Your task to perform on an android device: turn off javascript in the chrome app Image 0: 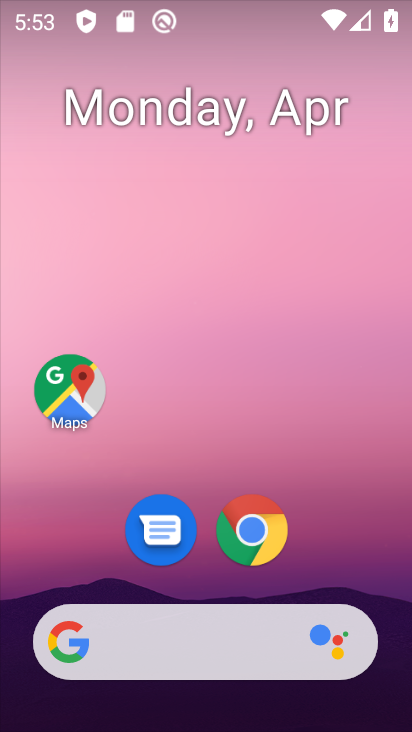
Step 0: click (249, 536)
Your task to perform on an android device: turn off javascript in the chrome app Image 1: 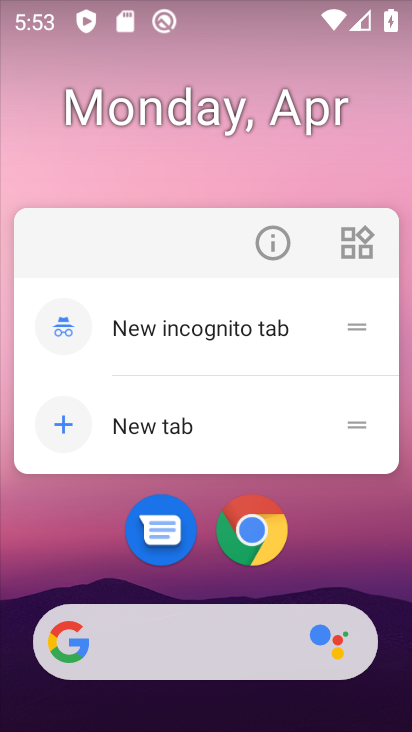
Step 1: click (251, 522)
Your task to perform on an android device: turn off javascript in the chrome app Image 2: 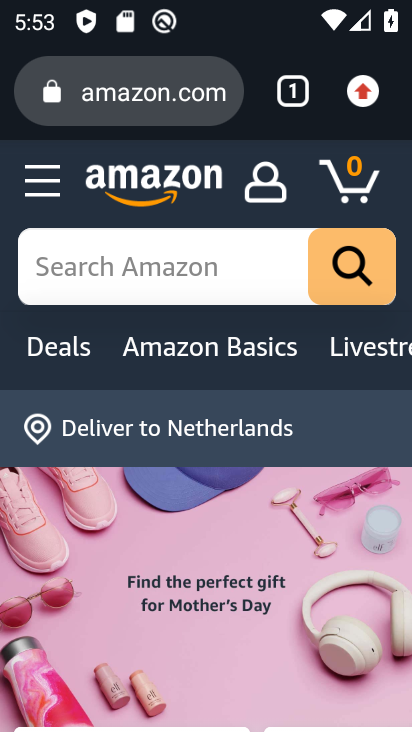
Step 2: click (365, 88)
Your task to perform on an android device: turn off javascript in the chrome app Image 3: 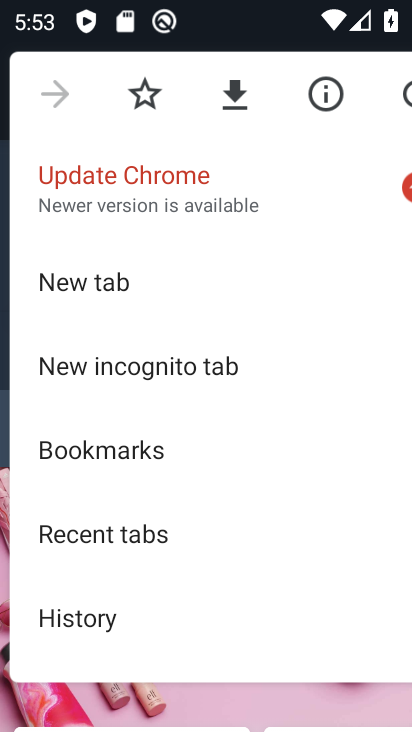
Step 3: drag from (188, 631) to (186, 127)
Your task to perform on an android device: turn off javascript in the chrome app Image 4: 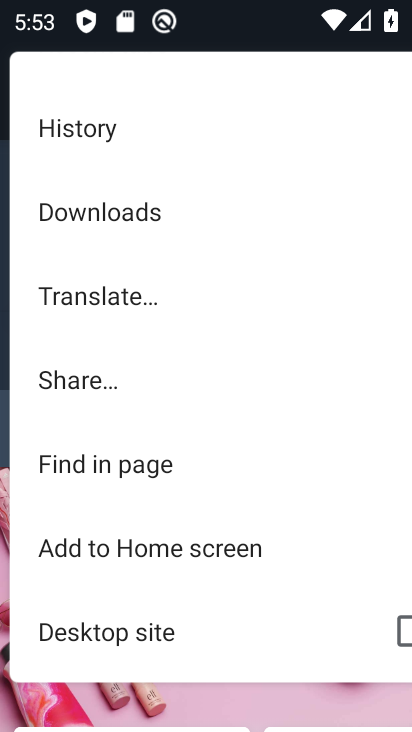
Step 4: drag from (178, 606) to (179, 238)
Your task to perform on an android device: turn off javascript in the chrome app Image 5: 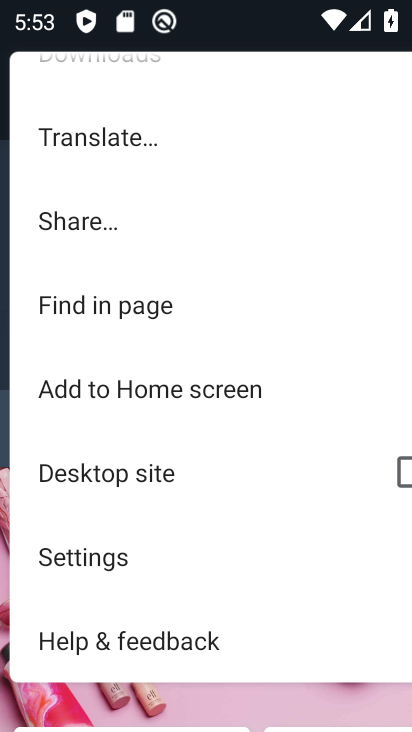
Step 5: click (126, 548)
Your task to perform on an android device: turn off javascript in the chrome app Image 6: 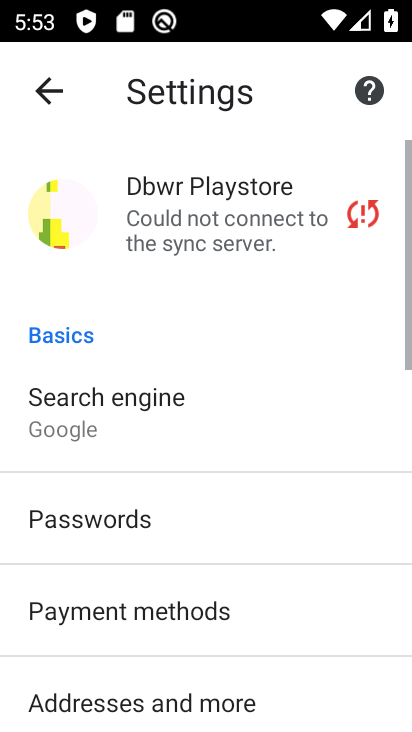
Step 6: drag from (180, 629) to (160, 138)
Your task to perform on an android device: turn off javascript in the chrome app Image 7: 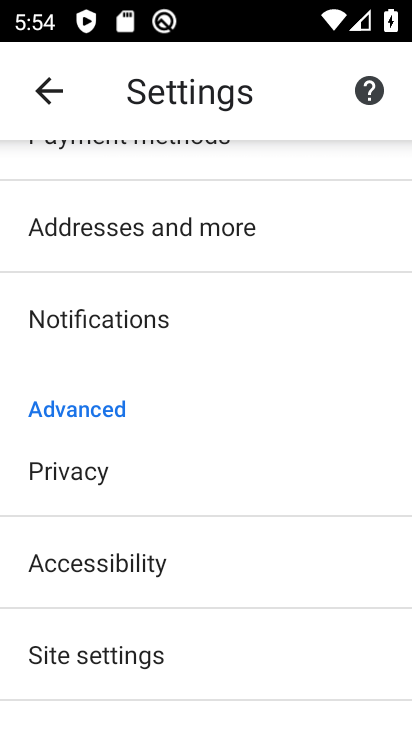
Step 7: click (149, 664)
Your task to perform on an android device: turn off javascript in the chrome app Image 8: 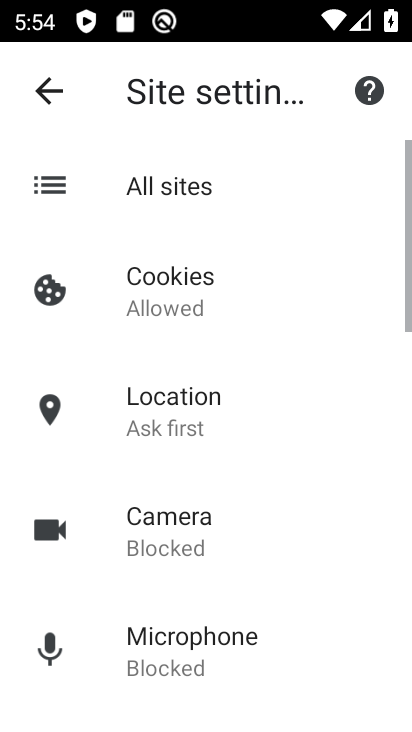
Step 8: drag from (223, 626) to (220, 107)
Your task to perform on an android device: turn off javascript in the chrome app Image 9: 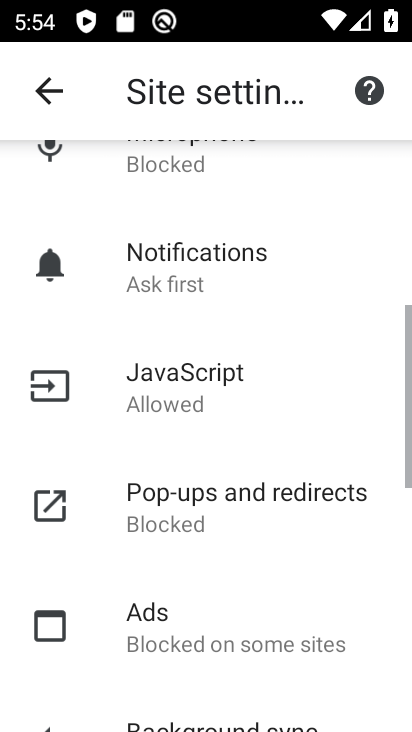
Step 9: click (209, 381)
Your task to perform on an android device: turn off javascript in the chrome app Image 10: 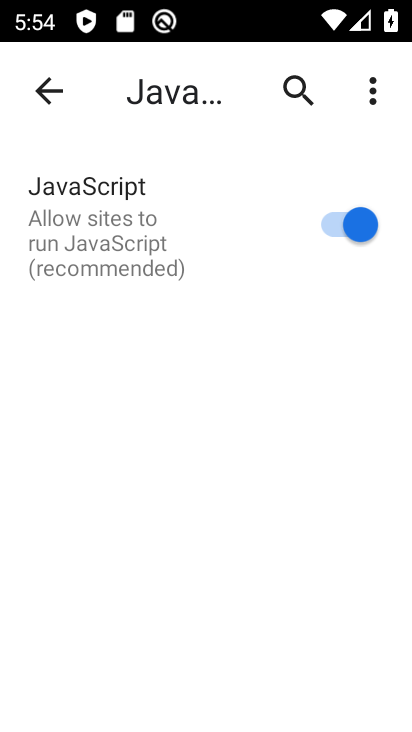
Step 10: task complete